Your task to perform on an android device: Open calendar and show me the second week of next month Image 0: 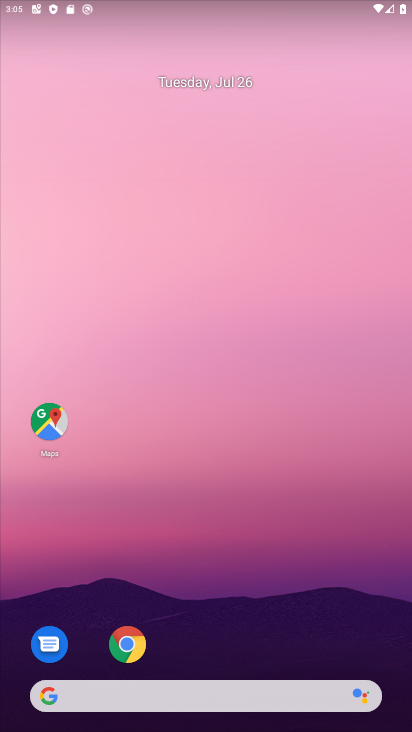
Step 0: drag from (220, 690) to (237, 142)
Your task to perform on an android device: Open calendar and show me the second week of next month Image 1: 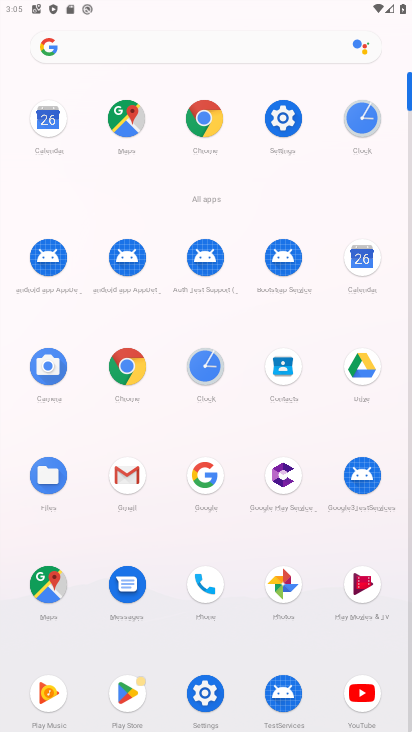
Step 1: click (368, 262)
Your task to perform on an android device: Open calendar and show me the second week of next month Image 2: 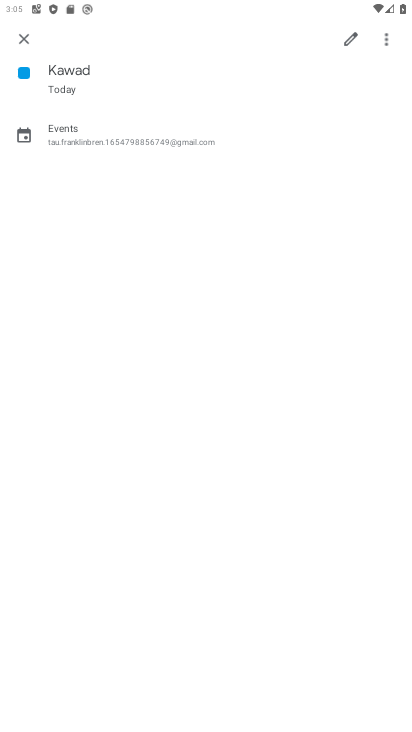
Step 2: click (25, 40)
Your task to perform on an android device: Open calendar and show me the second week of next month Image 3: 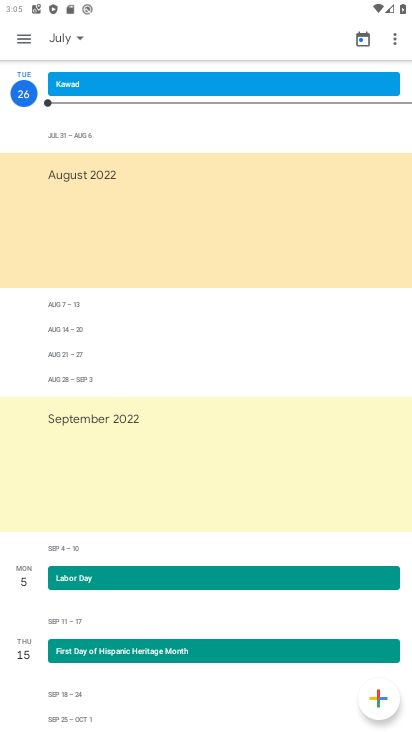
Step 3: click (84, 38)
Your task to perform on an android device: Open calendar and show me the second week of next month Image 4: 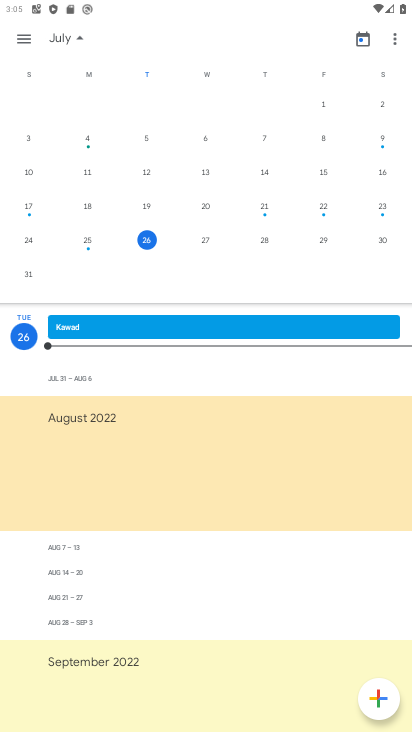
Step 4: drag from (401, 212) to (27, 272)
Your task to perform on an android device: Open calendar and show me the second week of next month Image 5: 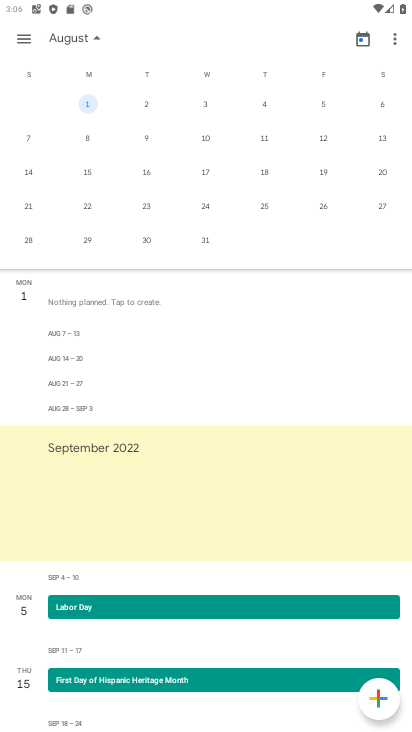
Step 5: click (27, 137)
Your task to perform on an android device: Open calendar and show me the second week of next month Image 6: 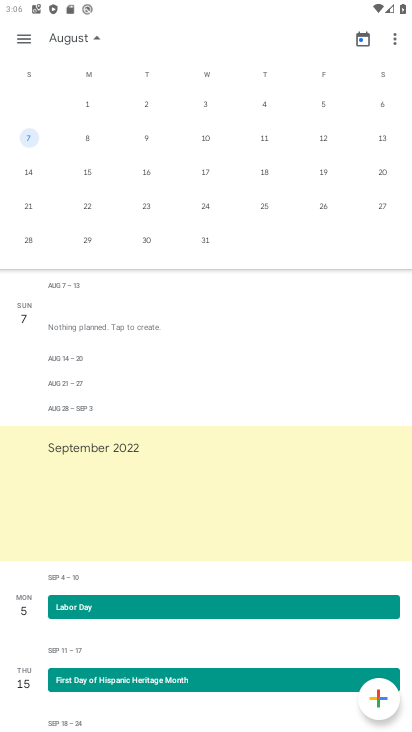
Step 6: task complete